Your task to perform on an android device: check data usage Image 0: 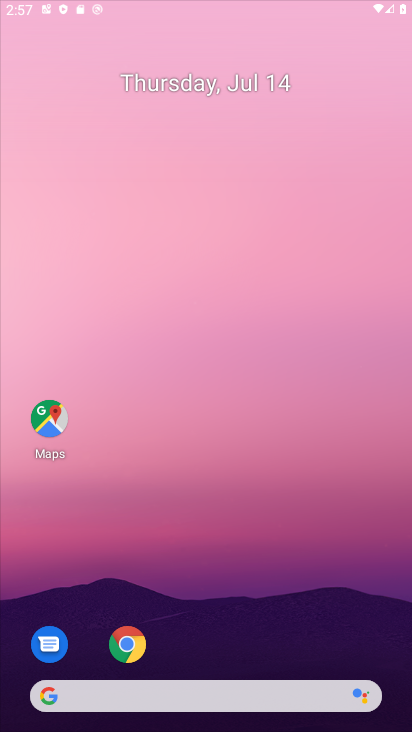
Step 0: click (204, 80)
Your task to perform on an android device: check data usage Image 1: 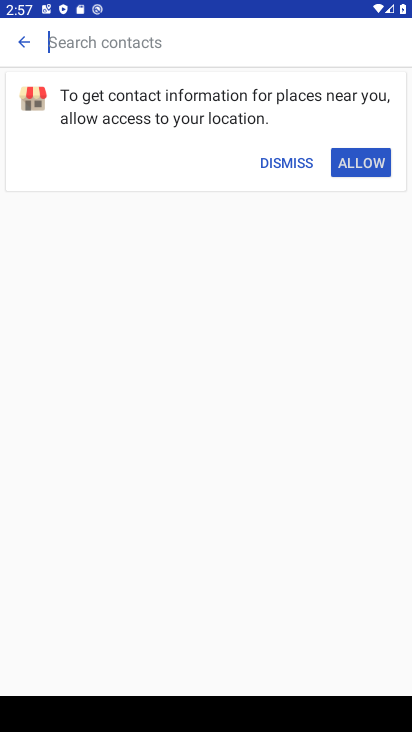
Step 1: drag from (208, 588) to (203, 525)
Your task to perform on an android device: check data usage Image 2: 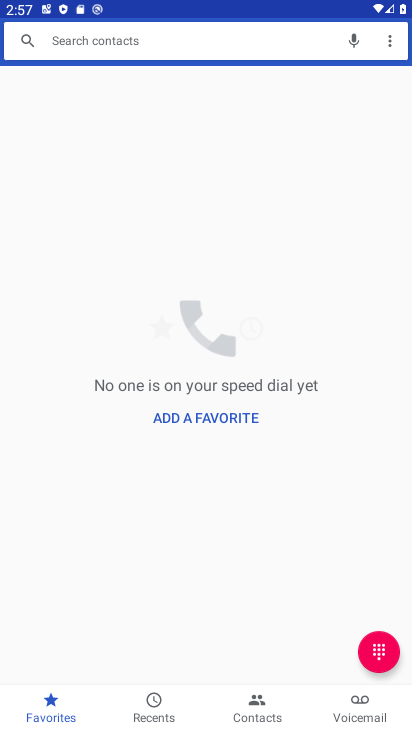
Step 2: press home button
Your task to perform on an android device: check data usage Image 3: 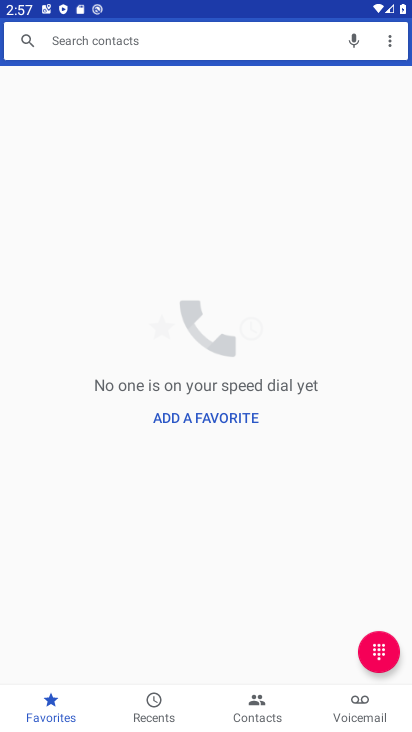
Step 3: drag from (342, 537) to (338, 213)
Your task to perform on an android device: check data usage Image 4: 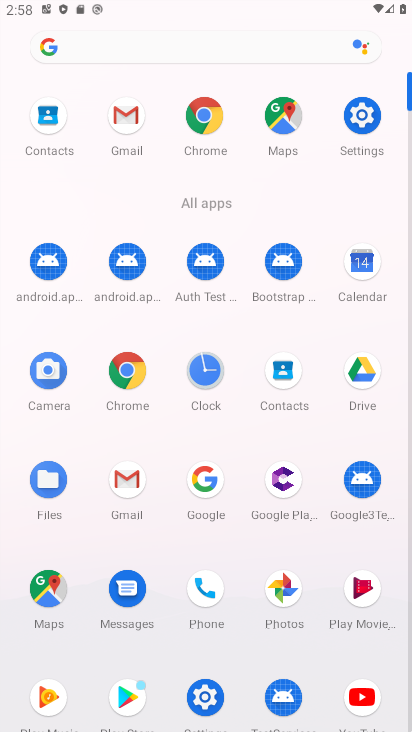
Step 4: click (357, 113)
Your task to perform on an android device: check data usage Image 5: 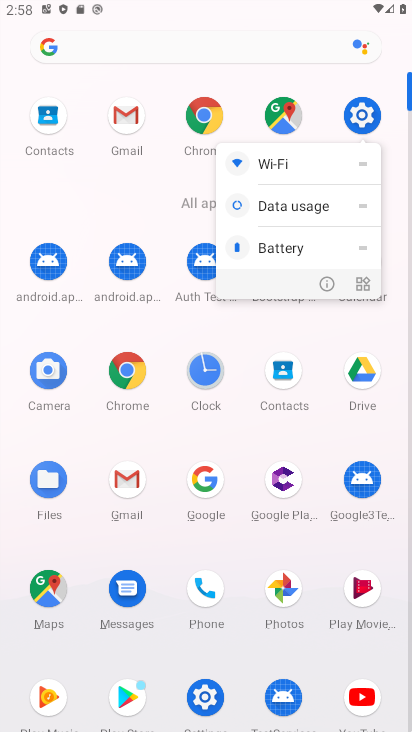
Step 5: click (318, 283)
Your task to perform on an android device: check data usage Image 6: 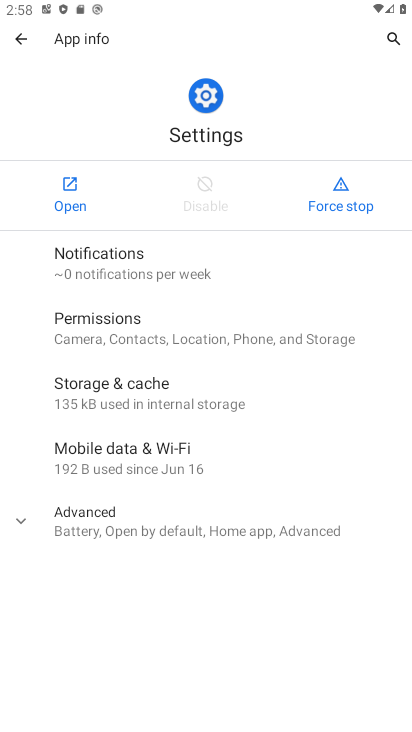
Step 6: click (63, 195)
Your task to perform on an android device: check data usage Image 7: 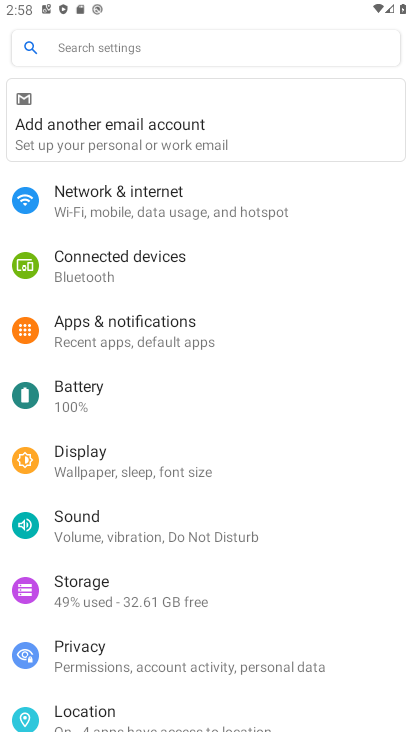
Step 7: click (138, 207)
Your task to perform on an android device: check data usage Image 8: 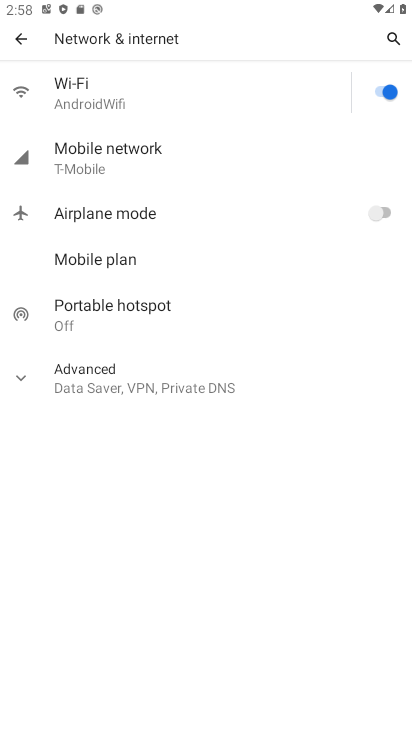
Step 8: click (178, 171)
Your task to perform on an android device: check data usage Image 9: 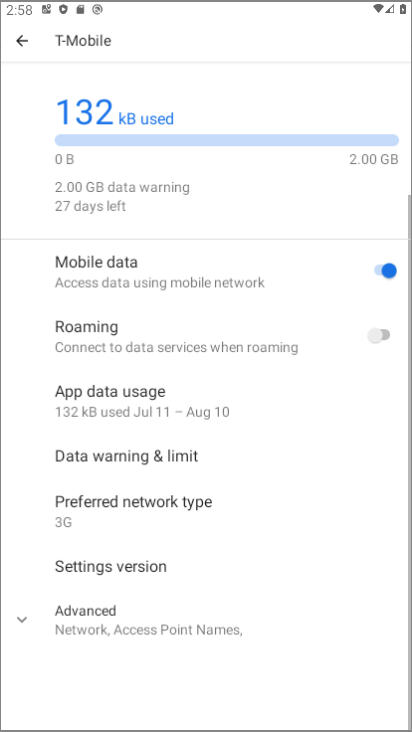
Step 9: task complete